Your task to perform on an android device: Open the phone app and click the voicemail tab. Image 0: 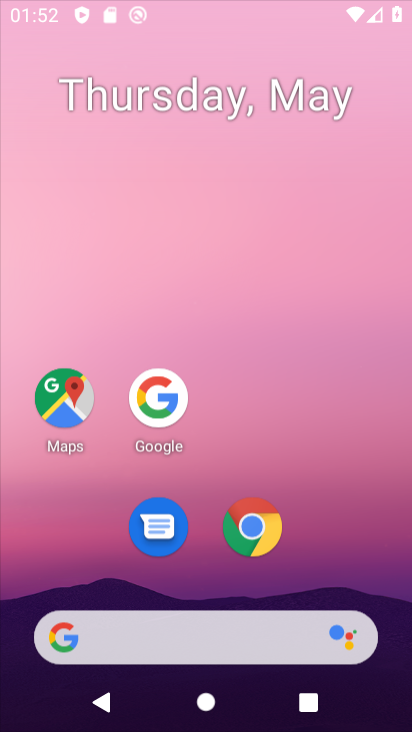
Step 0: click (257, 191)
Your task to perform on an android device: Open the phone app and click the voicemail tab. Image 1: 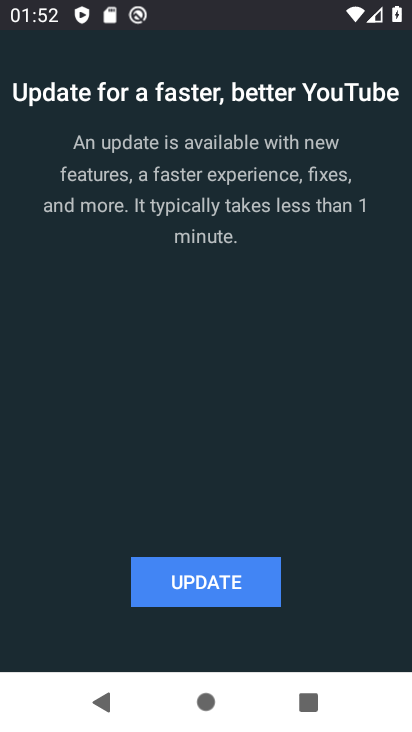
Step 1: press home button
Your task to perform on an android device: Open the phone app and click the voicemail tab. Image 2: 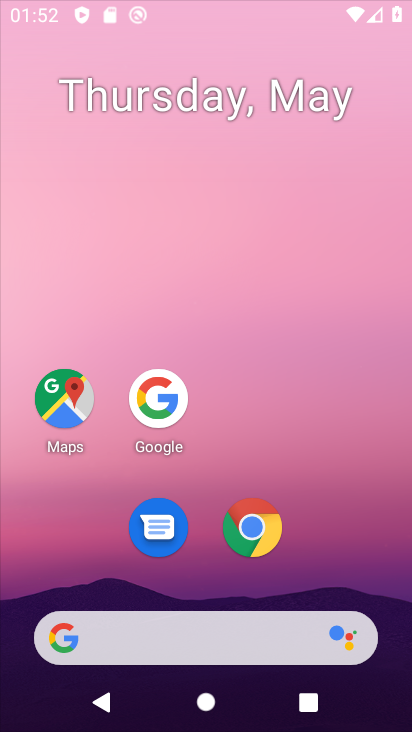
Step 2: drag from (210, 610) to (333, 126)
Your task to perform on an android device: Open the phone app and click the voicemail tab. Image 3: 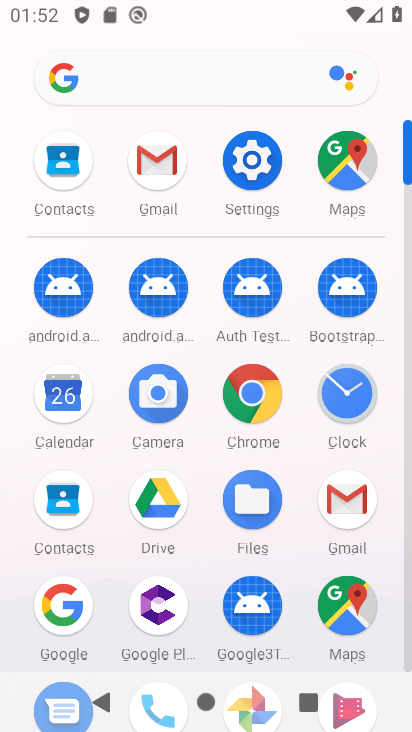
Step 3: drag from (199, 642) to (264, 305)
Your task to perform on an android device: Open the phone app and click the voicemail tab. Image 4: 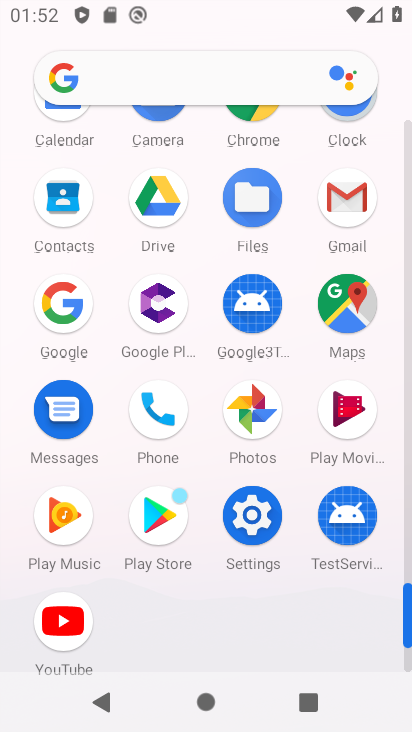
Step 4: click (151, 413)
Your task to perform on an android device: Open the phone app and click the voicemail tab. Image 5: 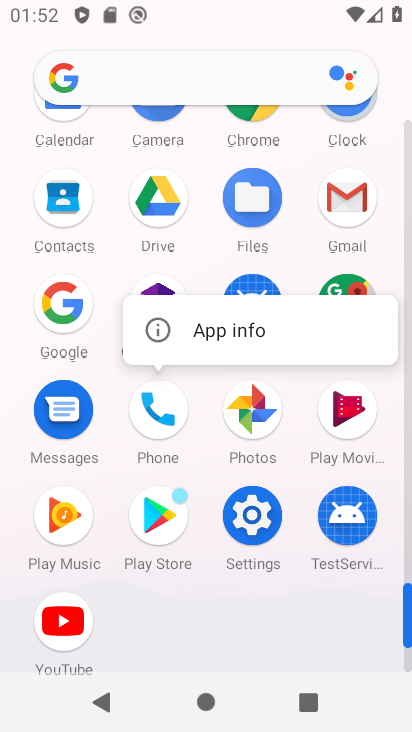
Step 5: click (239, 341)
Your task to perform on an android device: Open the phone app and click the voicemail tab. Image 6: 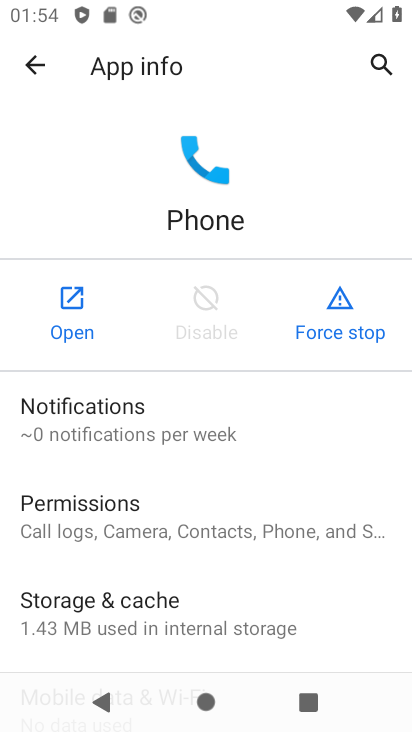
Step 6: click (59, 334)
Your task to perform on an android device: Open the phone app and click the voicemail tab. Image 7: 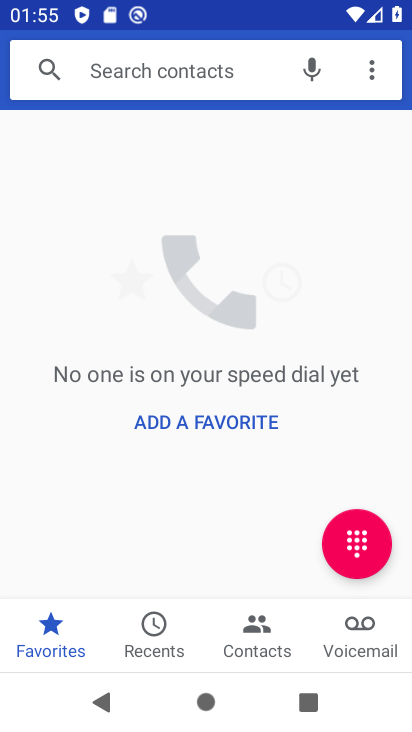
Step 7: click (352, 632)
Your task to perform on an android device: Open the phone app and click the voicemail tab. Image 8: 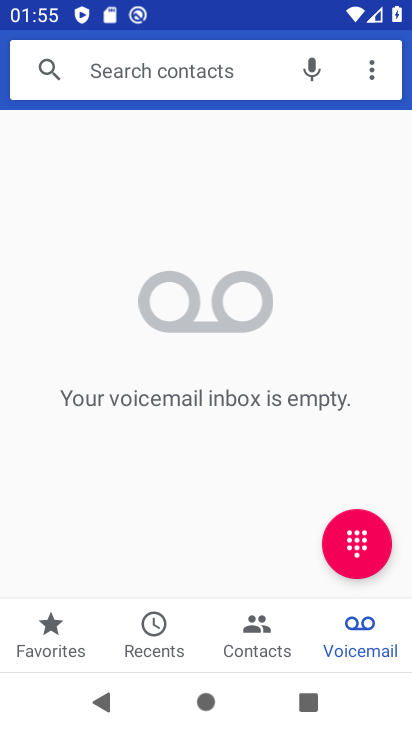
Step 8: task complete